Your task to perform on an android device: Open the calendar Image 0: 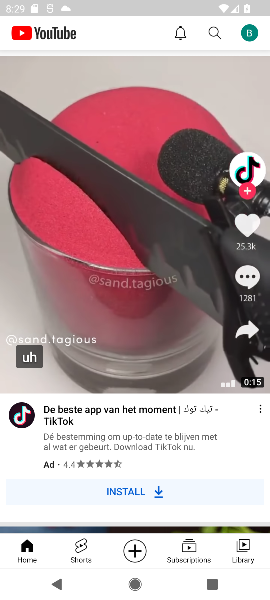
Step 0: press home button
Your task to perform on an android device: Open the calendar Image 1: 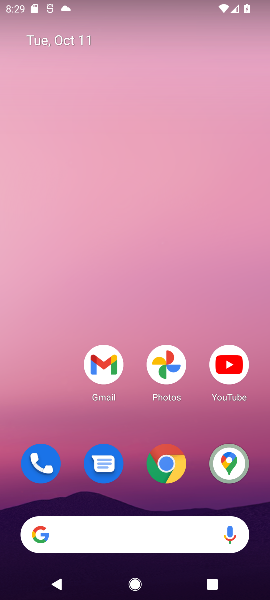
Step 1: drag from (141, 503) to (170, 83)
Your task to perform on an android device: Open the calendar Image 2: 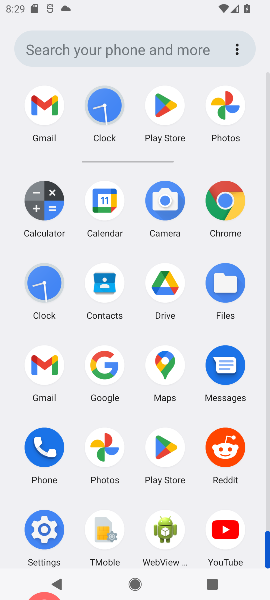
Step 2: click (98, 200)
Your task to perform on an android device: Open the calendar Image 3: 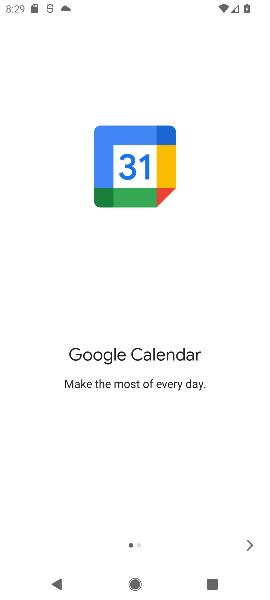
Step 3: click (239, 546)
Your task to perform on an android device: Open the calendar Image 4: 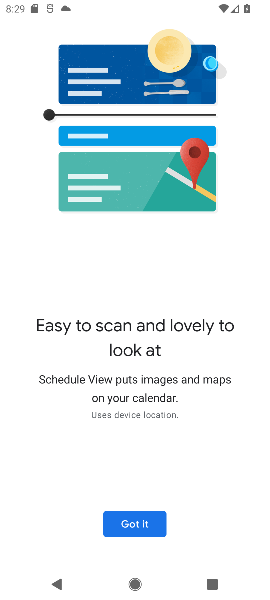
Step 4: click (239, 546)
Your task to perform on an android device: Open the calendar Image 5: 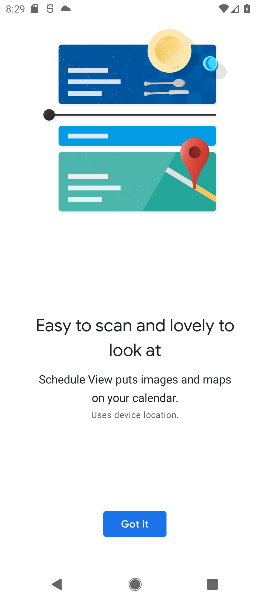
Step 5: click (35, 512)
Your task to perform on an android device: Open the calendar Image 6: 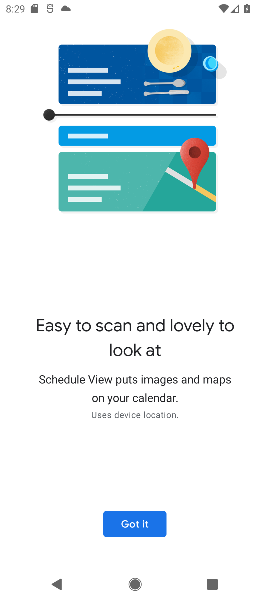
Step 6: click (151, 526)
Your task to perform on an android device: Open the calendar Image 7: 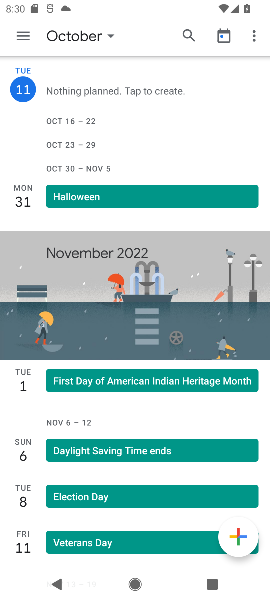
Step 7: task complete